Your task to perform on an android device: Go to Amazon Image 0: 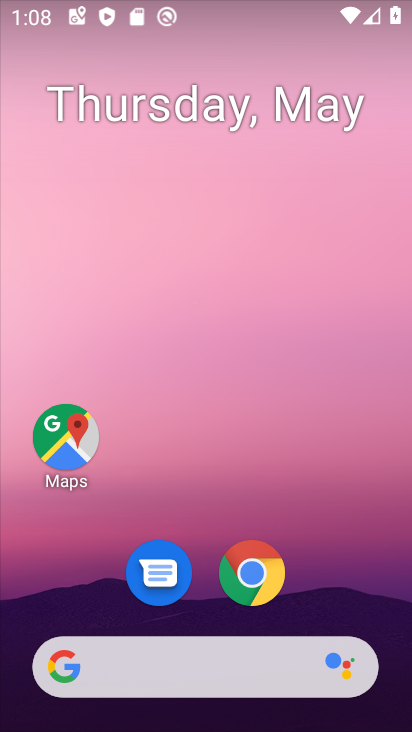
Step 0: click (254, 602)
Your task to perform on an android device: Go to Amazon Image 1: 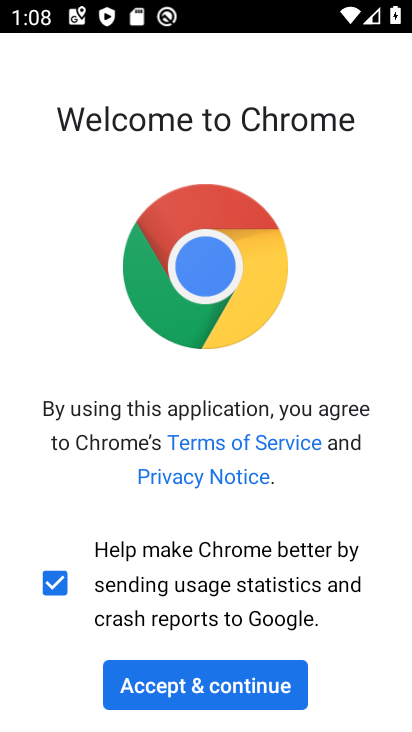
Step 1: click (245, 681)
Your task to perform on an android device: Go to Amazon Image 2: 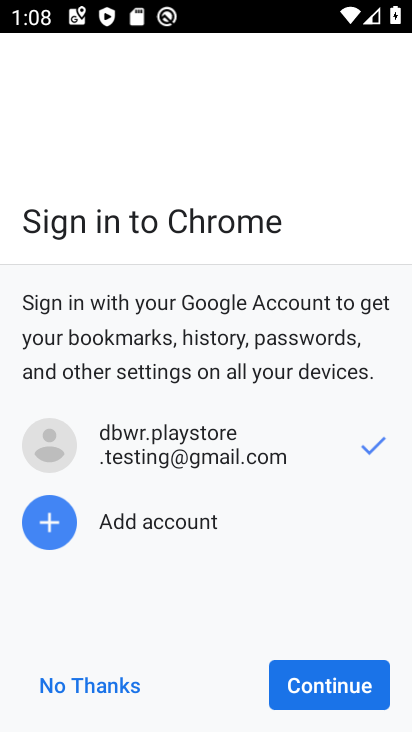
Step 2: click (305, 696)
Your task to perform on an android device: Go to Amazon Image 3: 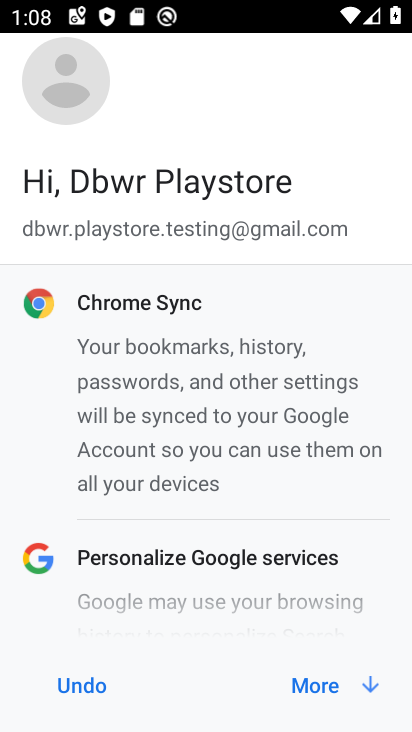
Step 3: click (329, 683)
Your task to perform on an android device: Go to Amazon Image 4: 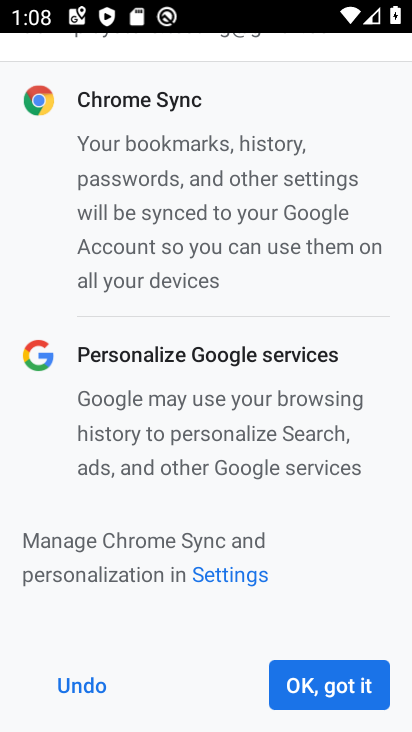
Step 4: click (329, 683)
Your task to perform on an android device: Go to Amazon Image 5: 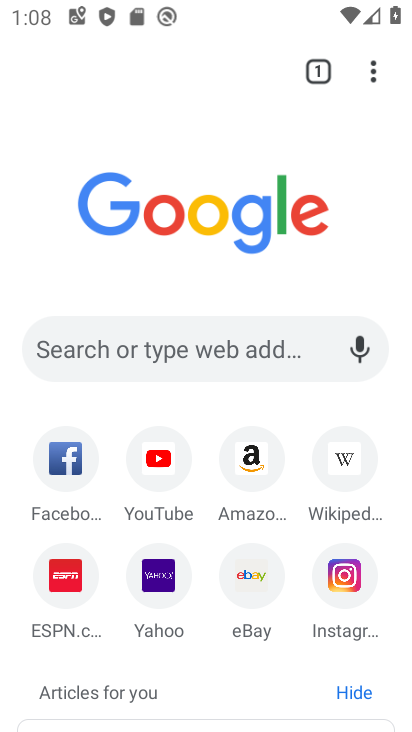
Step 5: click (246, 472)
Your task to perform on an android device: Go to Amazon Image 6: 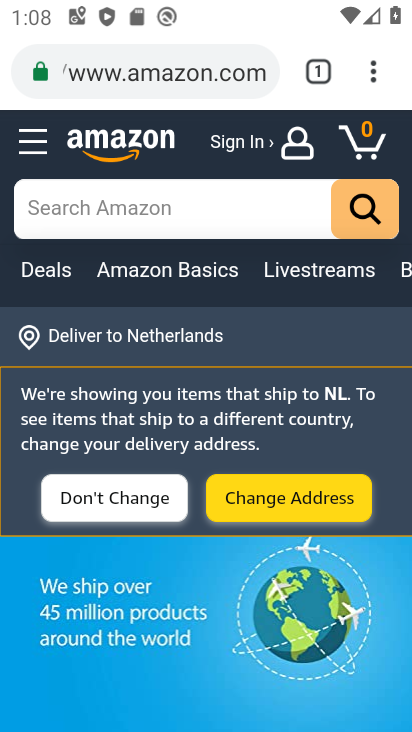
Step 6: task complete